Your task to perform on an android device: toggle airplane mode Image 0: 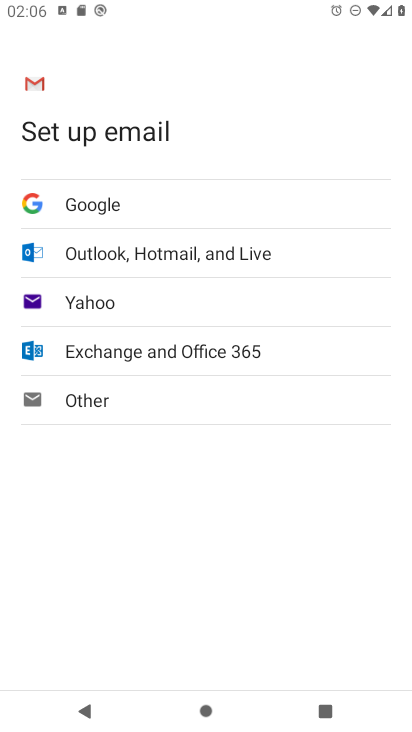
Step 0: press home button
Your task to perform on an android device: toggle airplane mode Image 1: 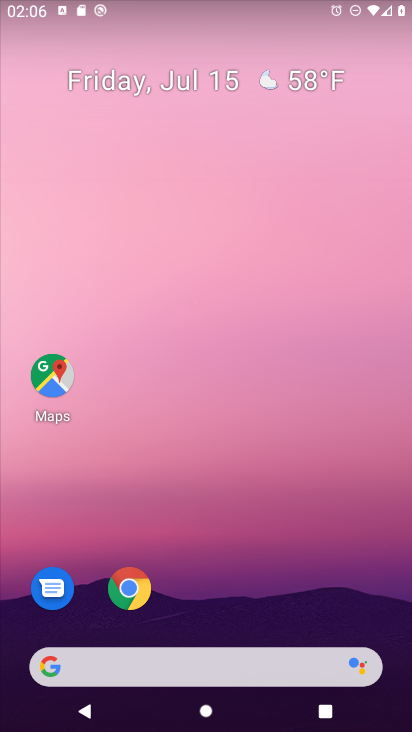
Step 1: drag from (302, 580) to (317, 139)
Your task to perform on an android device: toggle airplane mode Image 2: 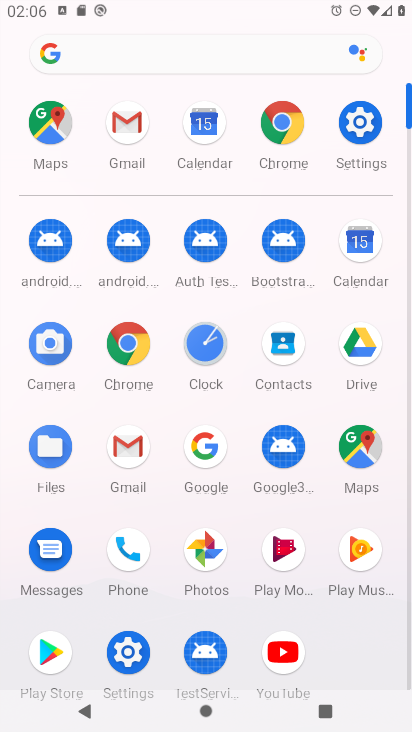
Step 2: click (126, 650)
Your task to perform on an android device: toggle airplane mode Image 3: 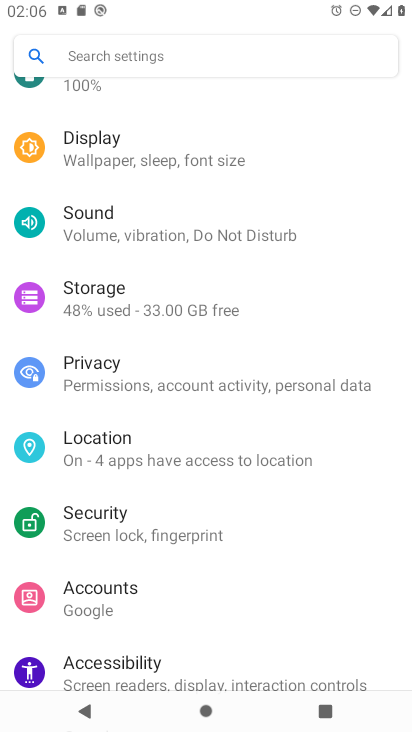
Step 3: drag from (312, 286) to (321, 570)
Your task to perform on an android device: toggle airplane mode Image 4: 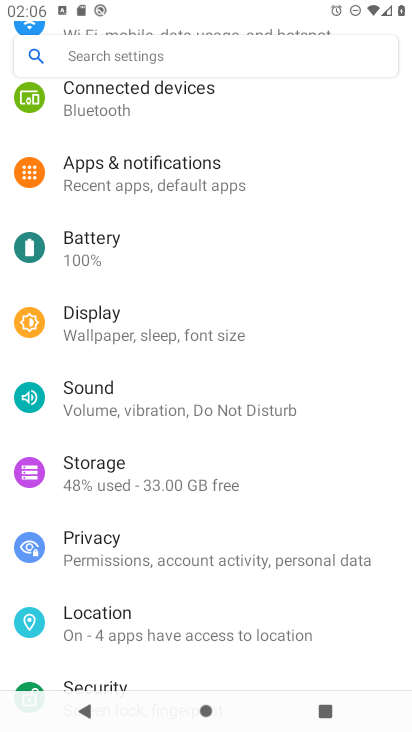
Step 4: drag from (281, 233) to (292, 388)
Your task to perform on an android device: toggle airplane mode Image 5: 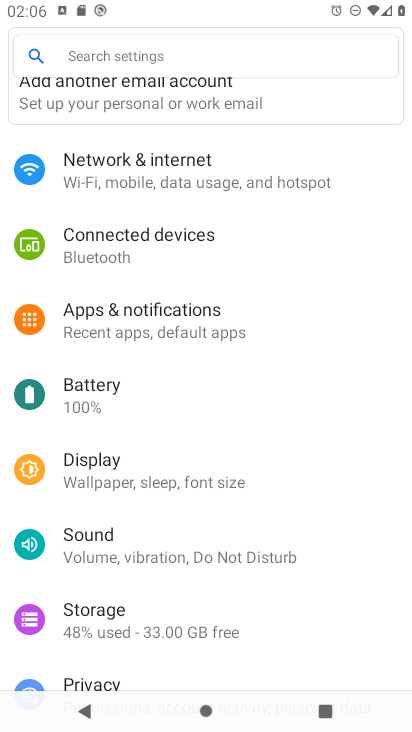
Step 5: click (114, 160)
Your task to perform on an android device: toggle airplane mode Image 6: 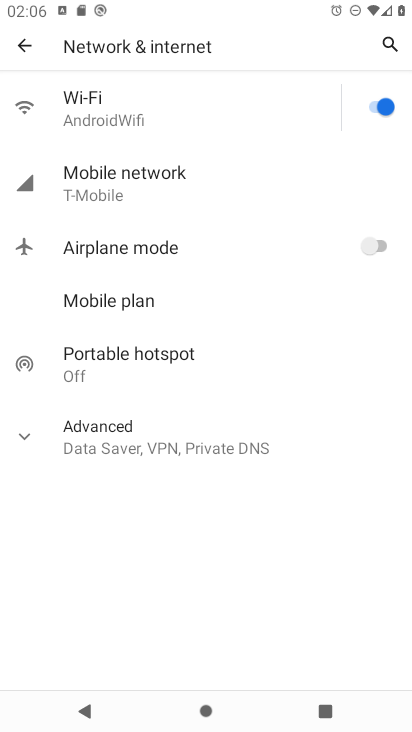
Step 6: click (380, 247)
Your task to perform on an android device: toggle airplane mode Image 7: 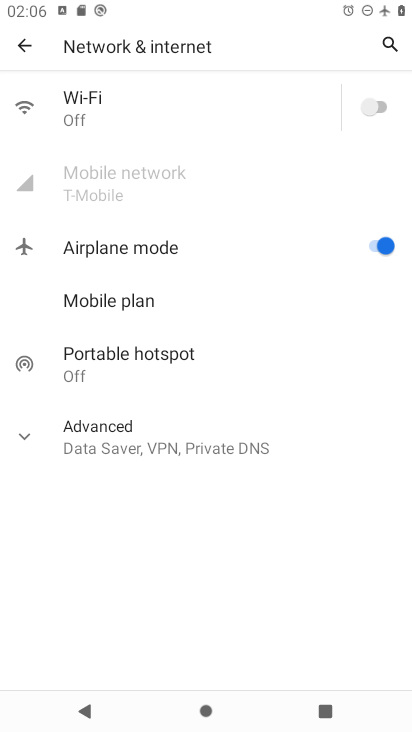
Step 7: task complete